Your task to perform on an android device: Show me popular games on the Play Store Image 0: 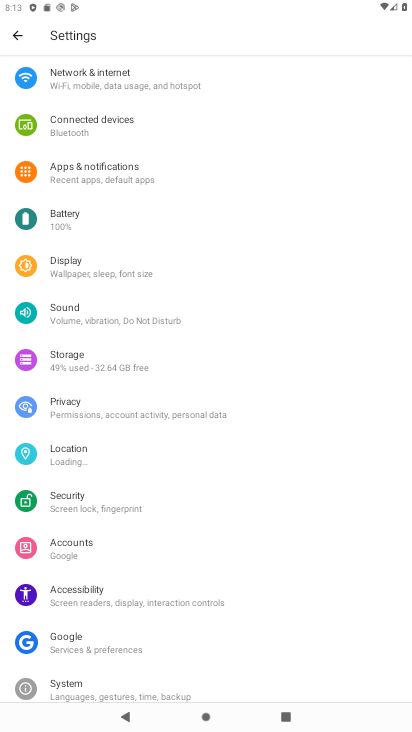
Step 0: press home button
Your task to perform on an android device: Show me popular games on the Play Store Image 1: 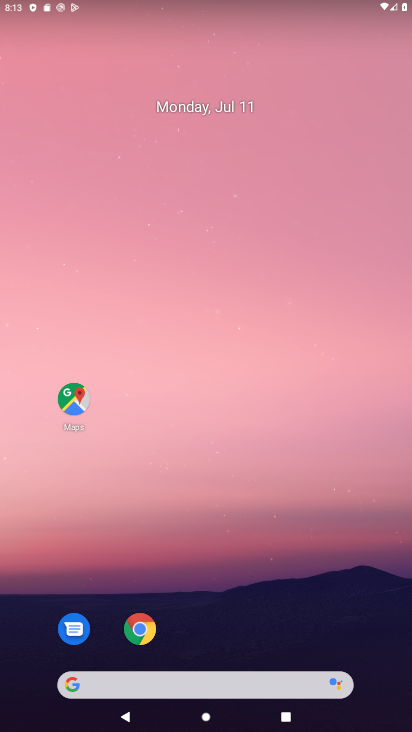
Step 1: drag from (206, 642) to (254, 119)
Your task to perform on an android device: Show me popular games on the Play Store Image 2: 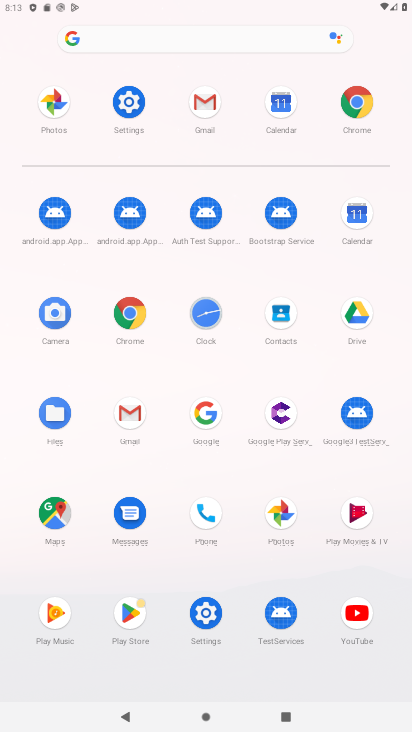
Step 2: click (132, 605)
Your task to perform on an android device: Show me popular games on the Play Store Image 3: 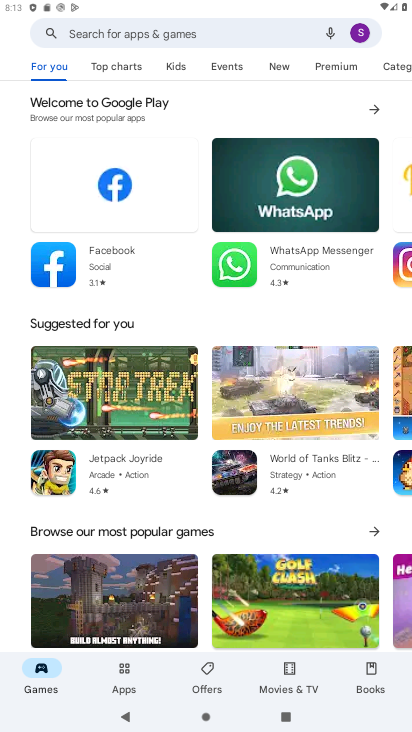
Step 3: click (385, 529)
Your task to perform on an android device: Show me popular games on the Play Store Image 4: 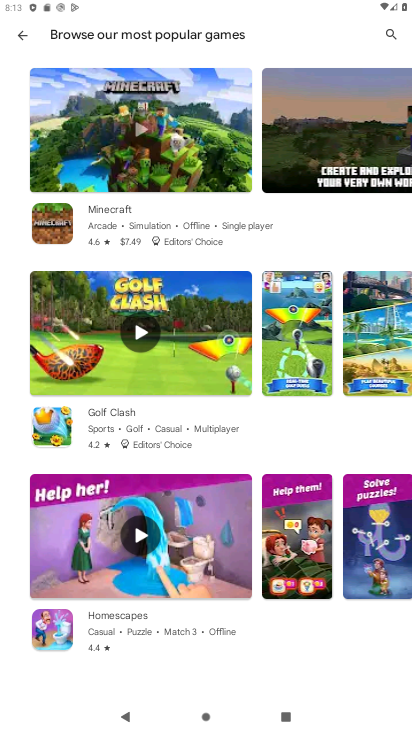
Step 4: task complete